Your task to perform on an android device: change the upload size in google photos Image 0: 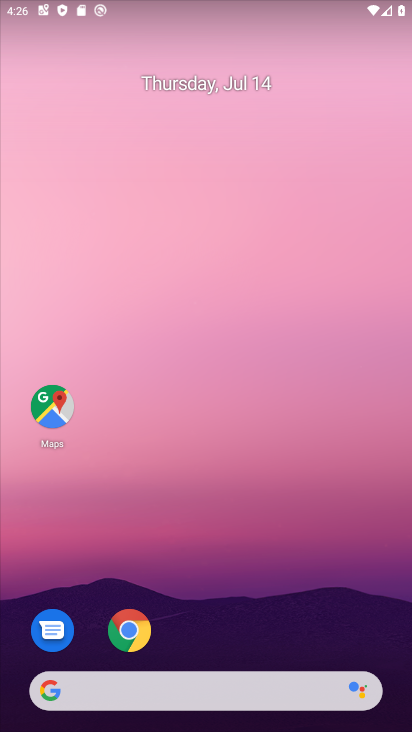
Step 0: drag from (218, 656) to (319, 3)
Your task to perform on an android device: change the upload size in google photos Image 1: 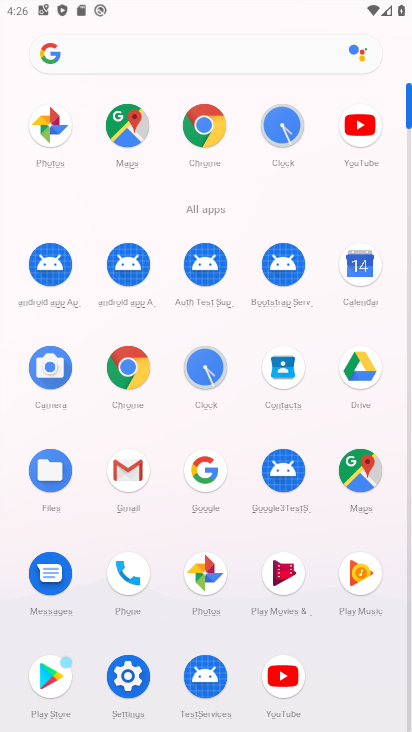
Step 1: click (211, 578)
Your task to perform on an android device: change the upload size in google photos Image 2: 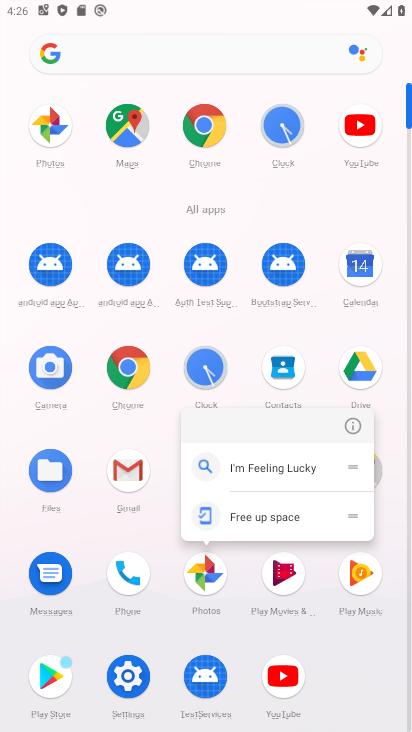
Step 2: click (197, 567)
Your task to perform on an android device: change the upload size in google photos Image 3: 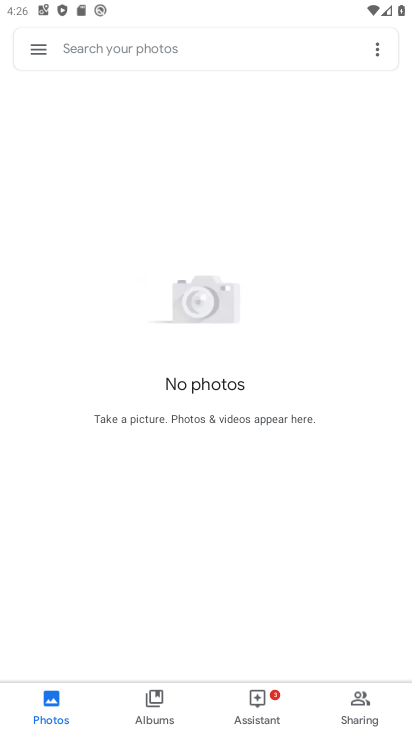
Step 3: click (44, 37)
Your task to perform on an android device: change the upload size in google photos Image 4: 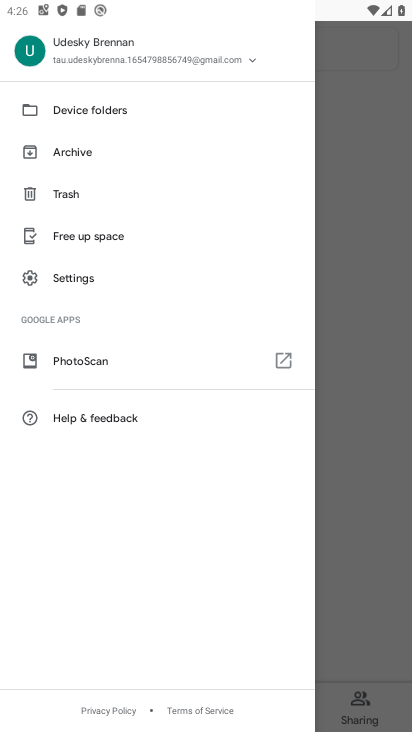
Step 4: click (61, 268)
Your task to perform on an android device: change the upload size in google photos Image 5: 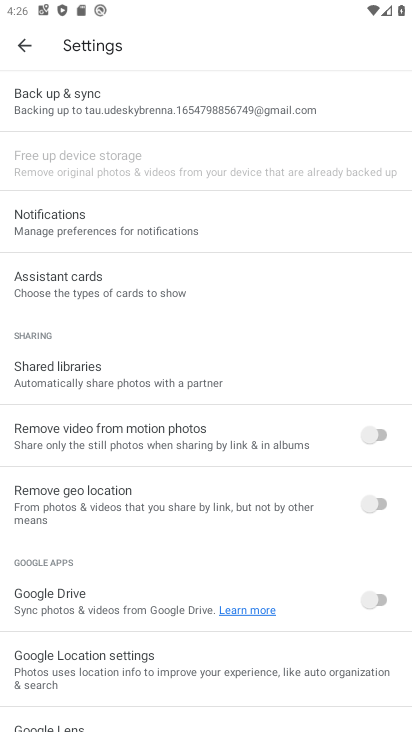
Step 5: click (111, 110)
Your task to perform on an android device: change the upload size in google photos Image 6: 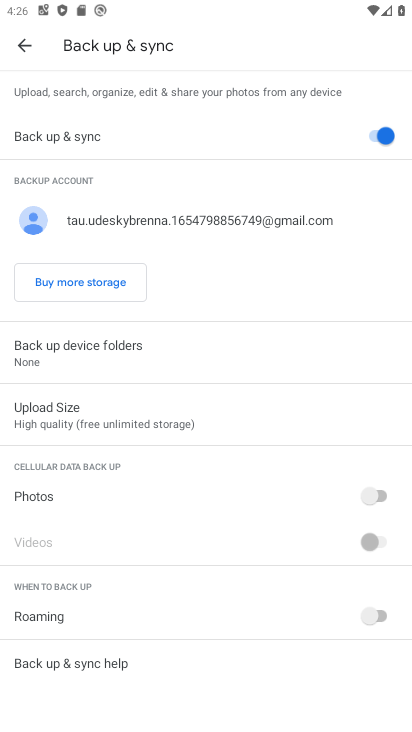
Step 6: click (67, 398)
Your task to perform on an android device: change the upload size in google photos Image 7: 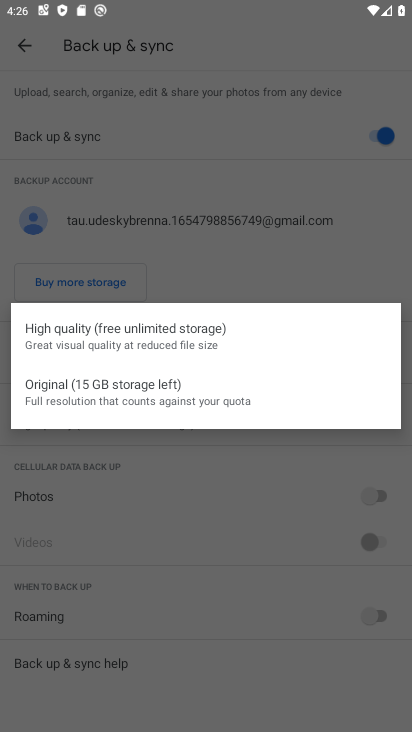
Step 7: click (186, 504)
Your task to perform on an android device: change the upload size in google photos Image 8: 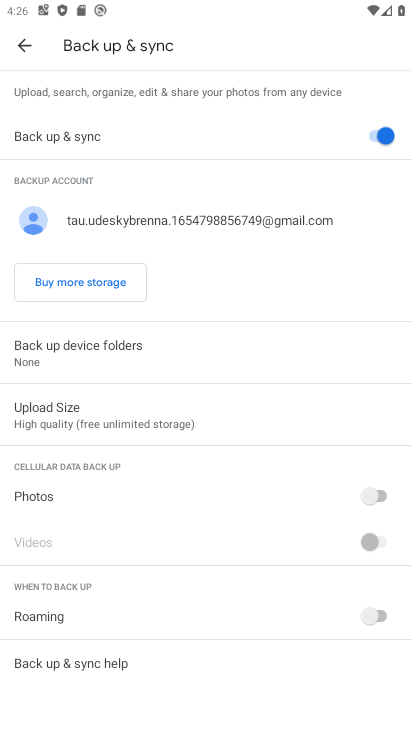
Step 8: click (111, 437)
Your task to perform on an android device: change the upload size in google photos Image 9: 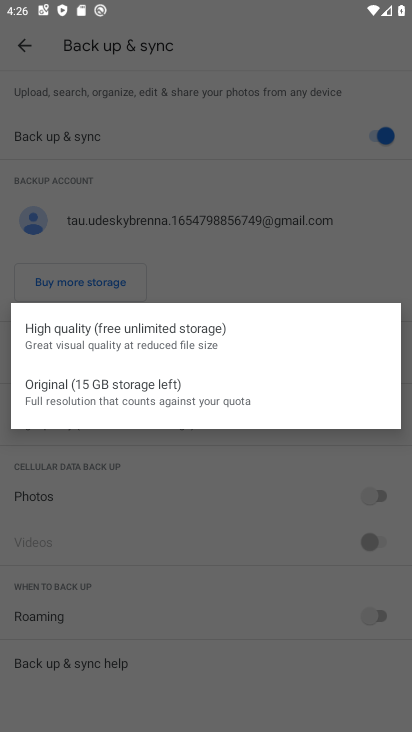
Step 9: click (54, 389)
Your task to perform on an android device: change the upload size in google photos Image 10: 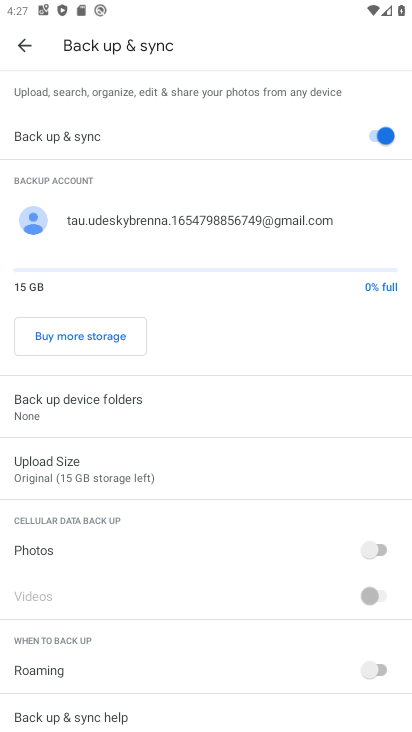
Step 10: task complete